Your task to perform on an android device: toggle wifi Image 0: 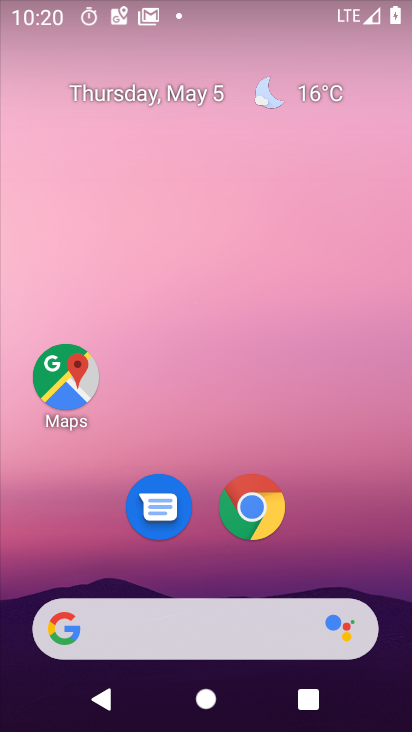
Step 0: drag from (151, 583) to (180, 255)
Your task to perform on an android device: toggle wifi Image 1: 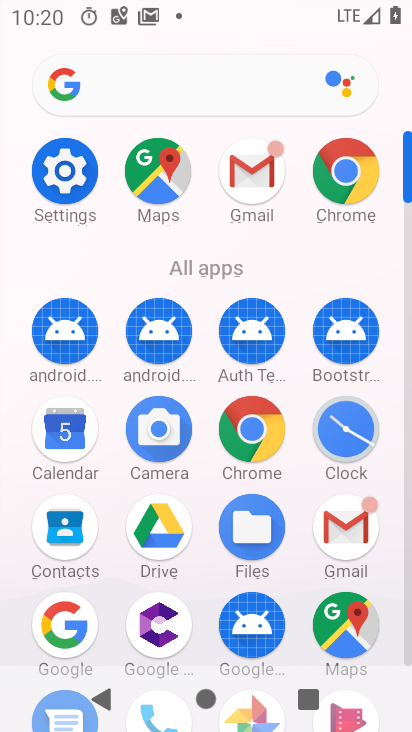
Step 1: drag from (206, 608) to (238, 333)
Your task to perform on an android device: toggle wifi Image 2: 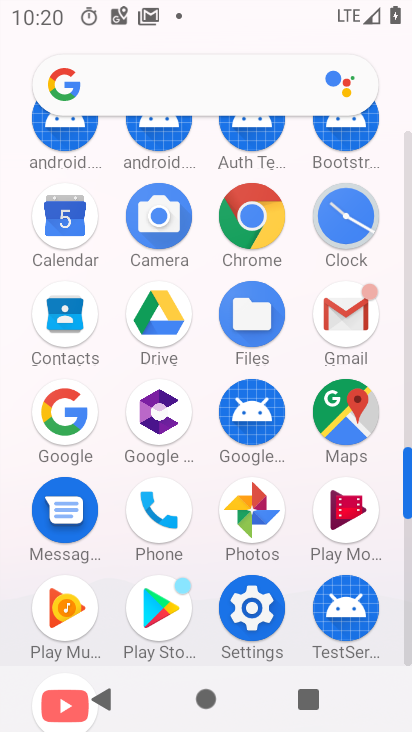
Step 2: click (247, 611)
Your task to perform on an android device: toggle wifi Image 3: 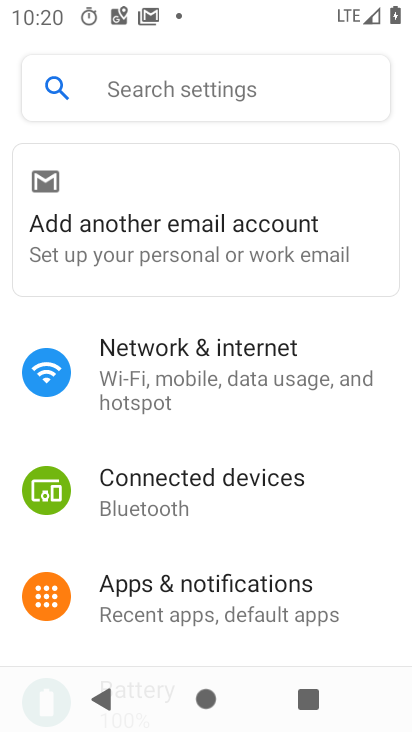
Step 3: click (226, 361)
Your task to perform on an android device: toggle wifi Image 4: 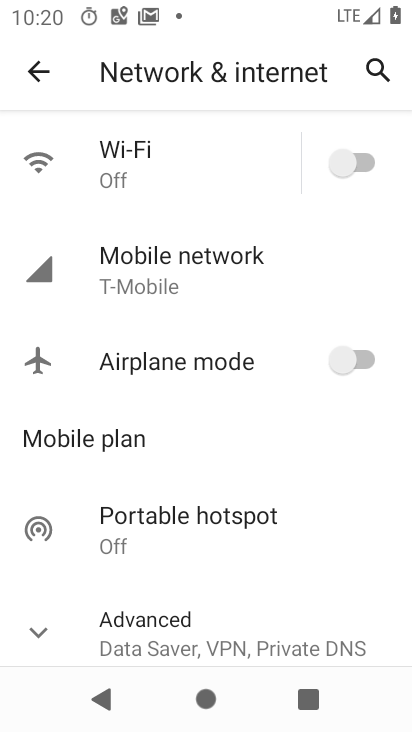
Step 4: click (335, 168)
Your task to perform on an android device: toggle wifi Image 5: 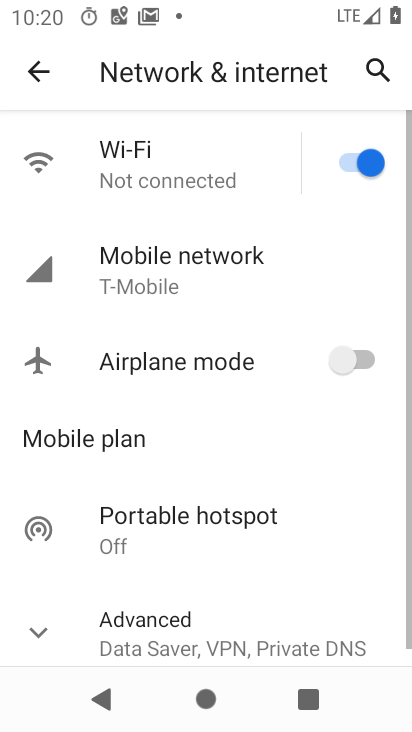
Step 5: task complete